Your task to perform on an android device: delete the emails in spam in the gmail app Image 0: 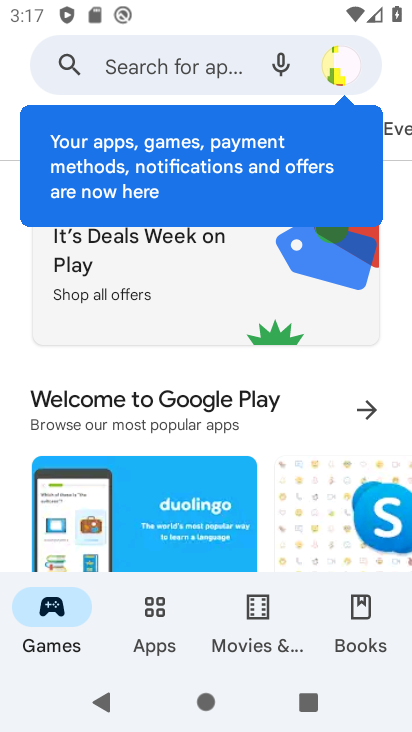
Step 0: press home button
Your task to perform on an android device: delete the emails in spam in the gmail app Image 1: 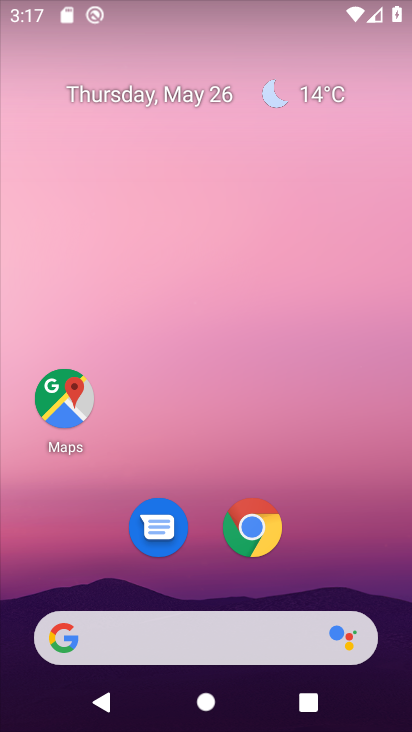
Step 1: drag from (340, 568) to (229, 127)
Your task to perform on an android device: delete the emails in spam in the gmail app Image 2: 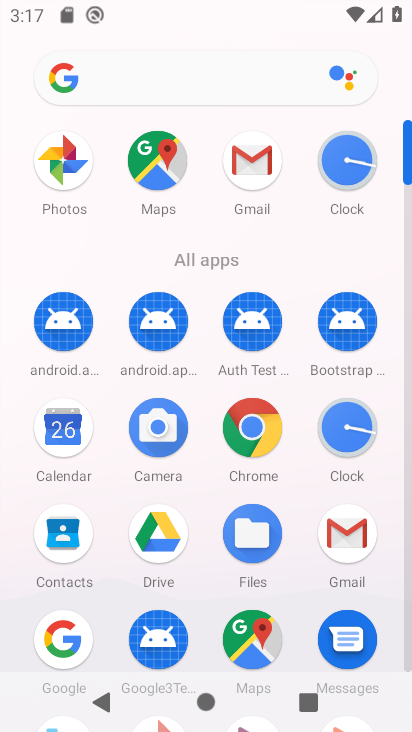
Step 2: click (352, 543)
Your task to perform on an android device: delete the emails in spam in the gmail app Image 3: 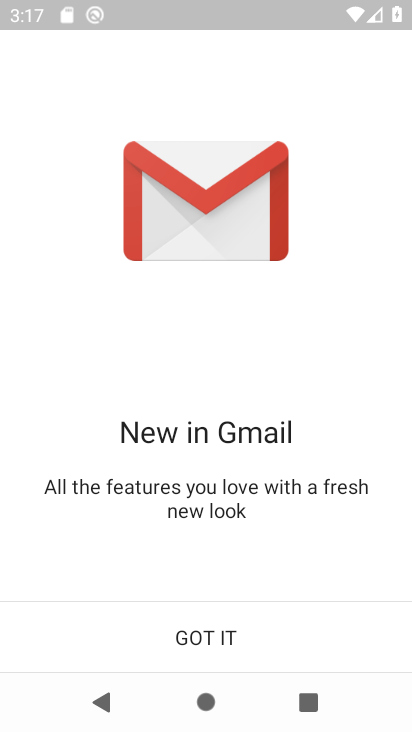
Step 3: click (225, 635)
Your task to perform on an android device: delete the emails in spam in the gmail app Image 4: 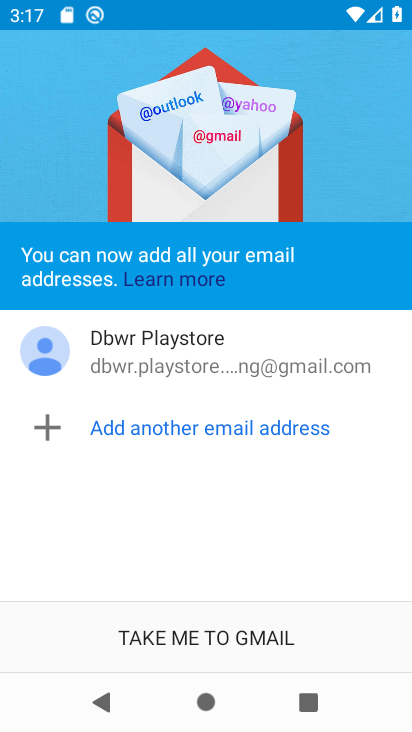
Step 4: click (225, 635)
Your task to perform on an android device: delete the emails in spam in the gmail app Image 5: 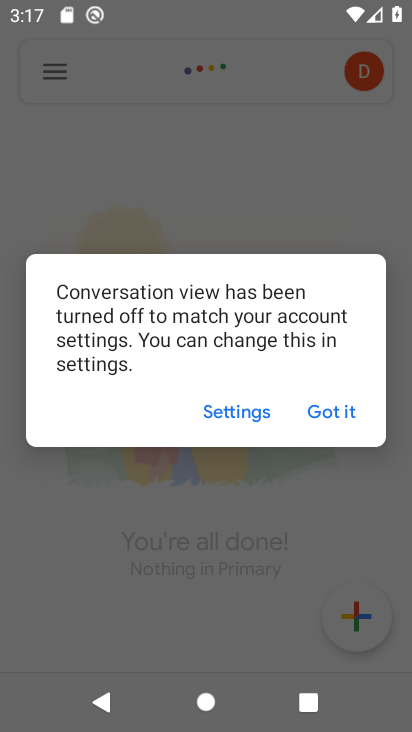
Step 5: click (342, 412)
Your task to perform on an android device: delete the emails in spam in the gmail app Image 6: 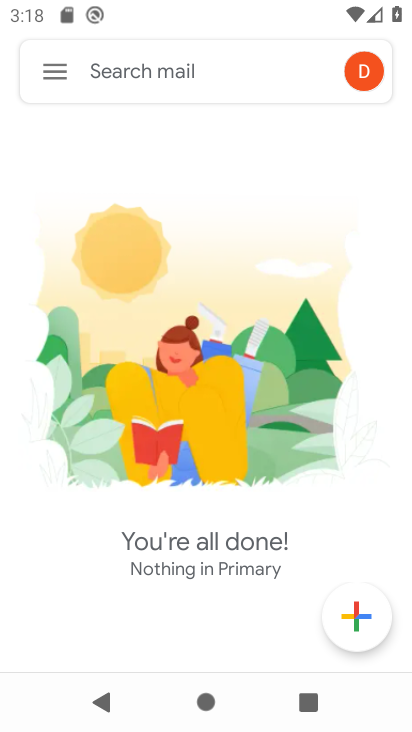
Step 6: click (49, 79)
Your task to perform on an android device: delete the emails in spam in the gmail app Image 7: 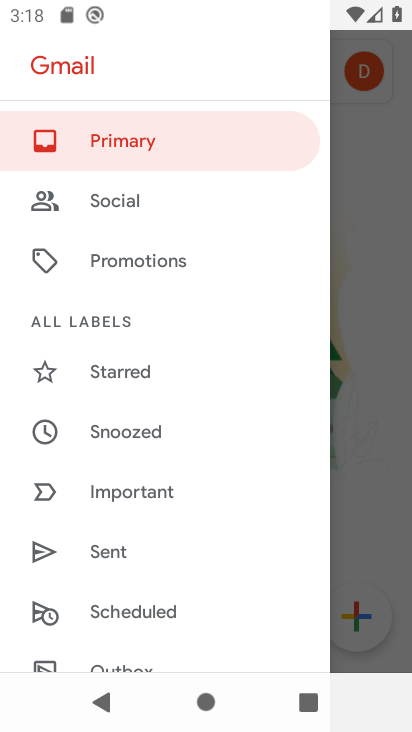
Step 7: drag from (187, 656) to (165, 276)
Your task to perform on an android device: delete the emails in spam in the gmail app Image 8: 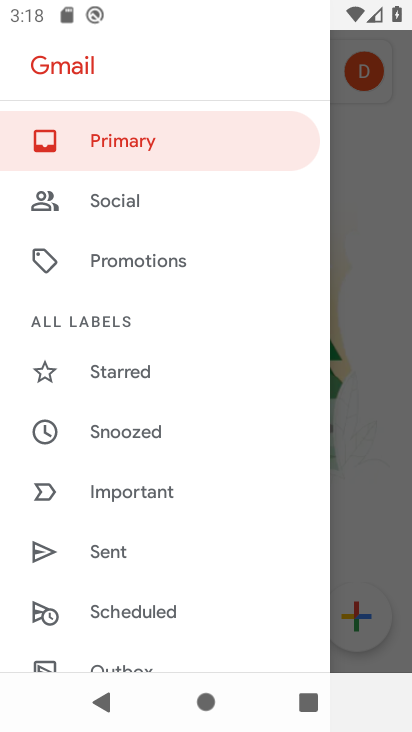
Step 8: drag from (140, 577) to (108, 170)
Your task to perform on an android device: delete the emails in spam in the gmail app Image 9: 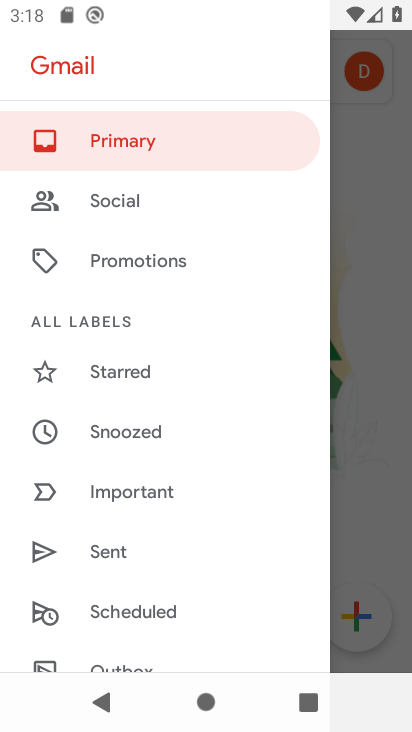
Step 9: drag from (129, 587) to (126, 112)
Your task to perform on an android device: delete the emails in spam in the gmail app Image 10: 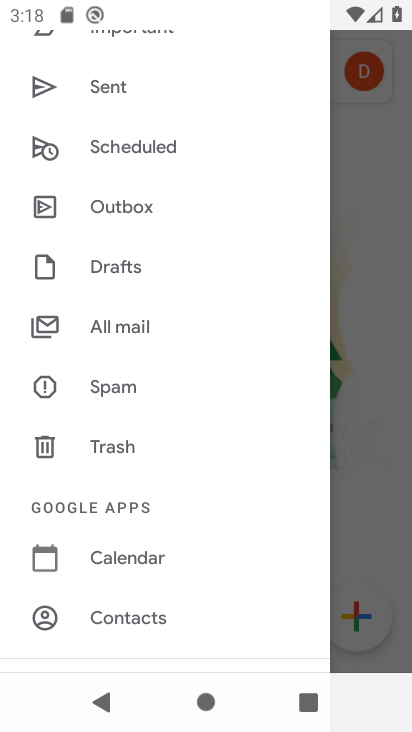
Step 10: click (115, 381)
Your task to perform on an android device: delete the emails in spam in the gmail app Image 11: 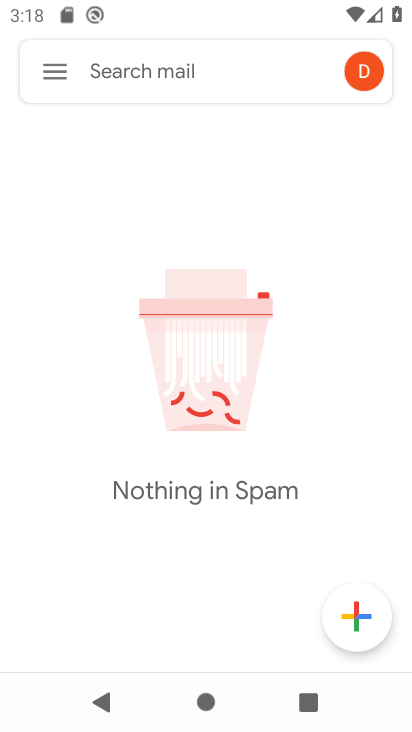
Step 11: task complete